Your task to perform on an android device: stop showing notifications on the lock screen Image 0: 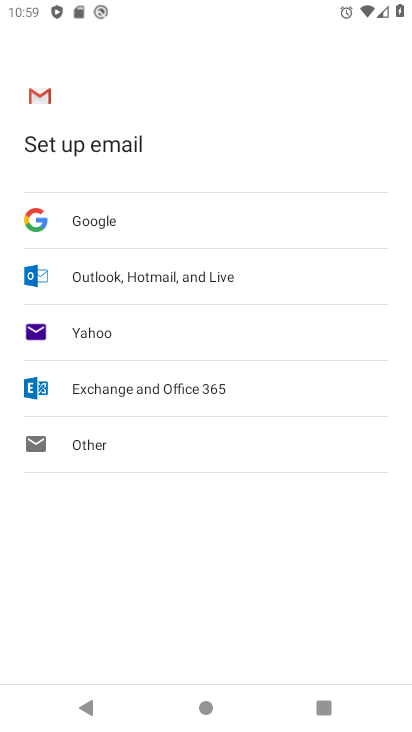
Step 0: press home button
Your task to perform on an android device: stop showing notifications on the lock screen Image 1: 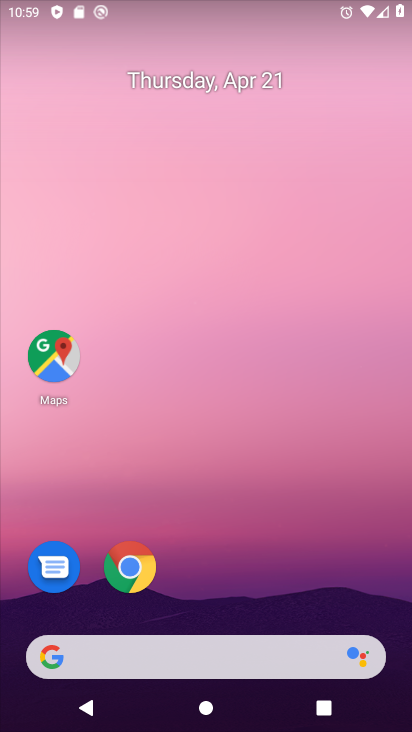
Step 1: drag from (209, 549) to (224, 67)
Your task to perform on an android device: stop showing notifications on the lock screen Image 2: 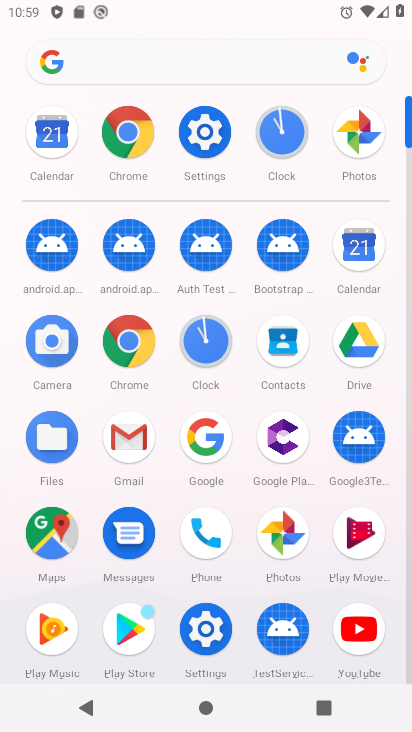
Step 2: click (198, 124)
Your task to perform on an android device: stop showing notifications on the lock screen Image 3: 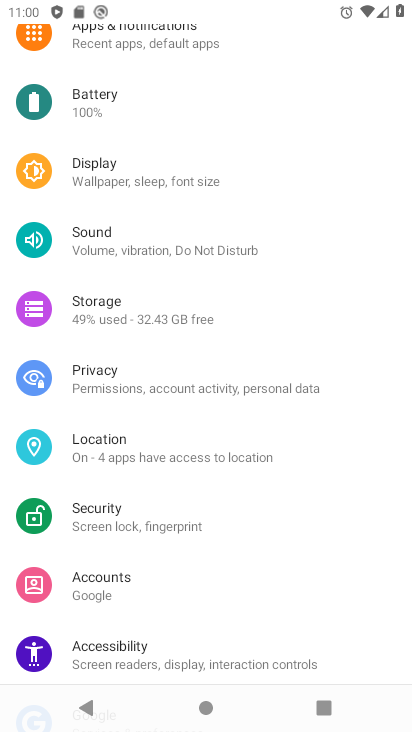
Step 3: drag from (148, 169) to (167, 386)
Your task to perform on an android device: stop showing notifications on the lock screen Image 4: 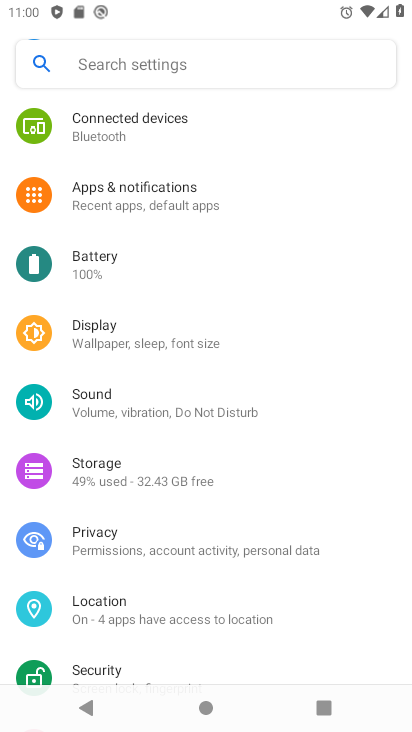
Step 4: click (130, 210)
Your task to perform on an android device: stop showing notifications on the lock screen Image 5: 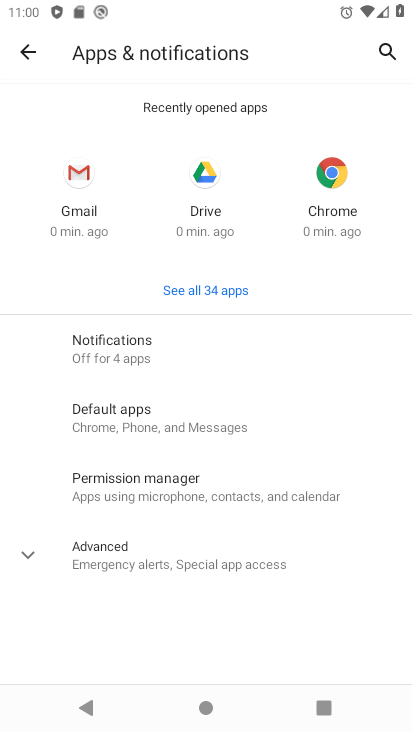
Step 5: click (137, 347)
Your task to perform on an android device: stop showing notifications on the lock screen Image 6: 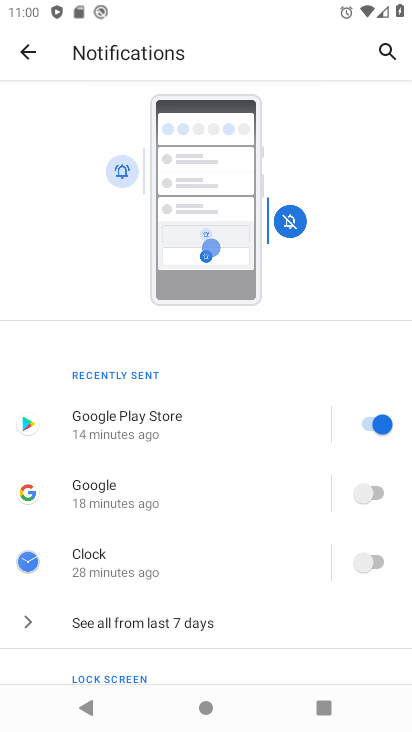
Step 6: drag from (181, 644) to (262, 199)
Your task to perform on an android device: stop showing notifications on the lock screen Image 7: 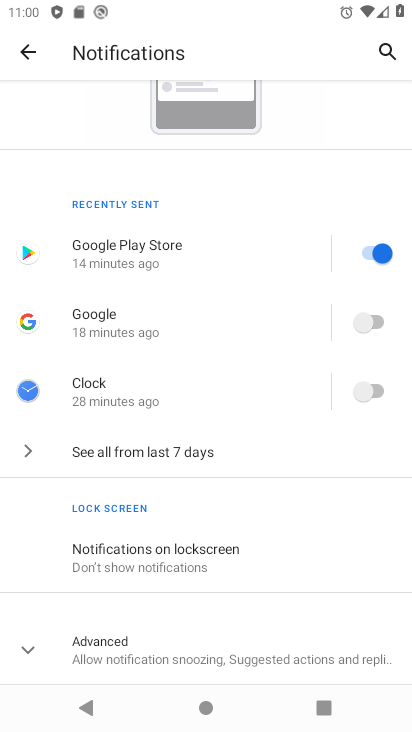
Step 7: click (220, 558)
Your task to perform on an android device: stop showing notifications on the lock screen Image 8: 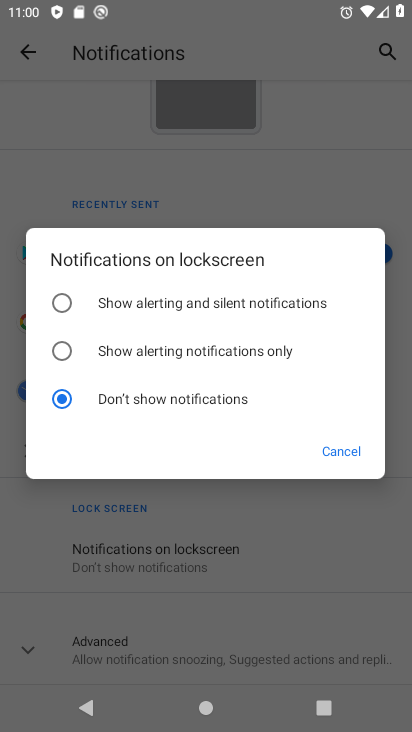
Step 8: task complete